Your task to perform on an android device: allow cookies in the chrome app Image 0: 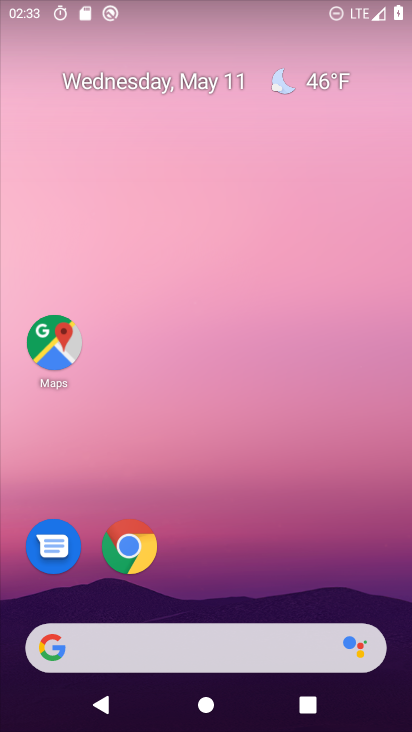
Step 0: drag from (249, 663) to (288, 153)
Your task to perform on an android device: allow cookies in the chrome app Image 1: 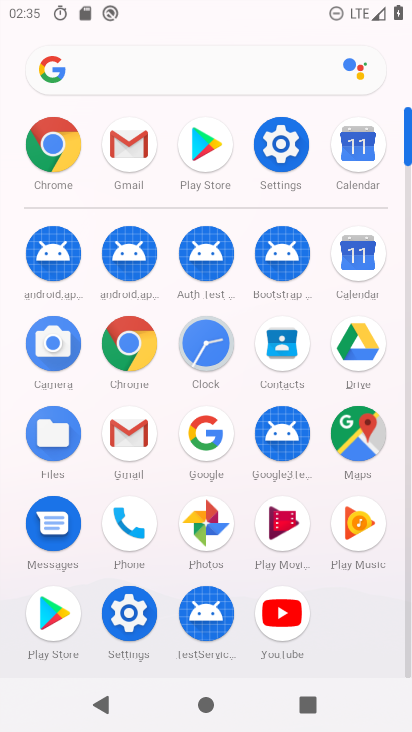
Step 1: click (120, 340)
Your task to perform on an android device: allow cookies in the chrome app Image 2: 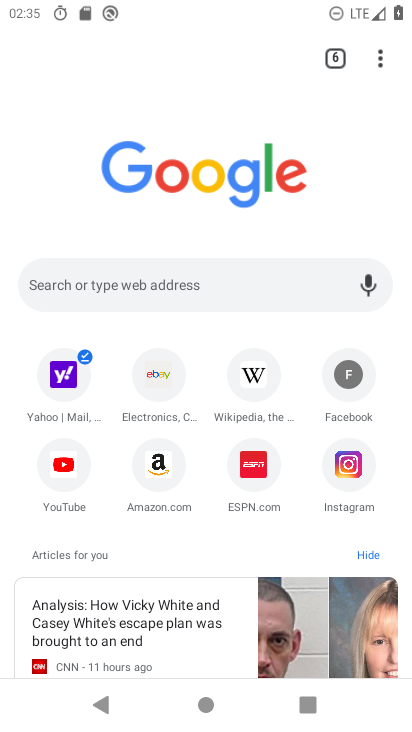
Step 2: click (378, 60)
Your task to perform on an android device: allow cookies in the chrome app Image 3: 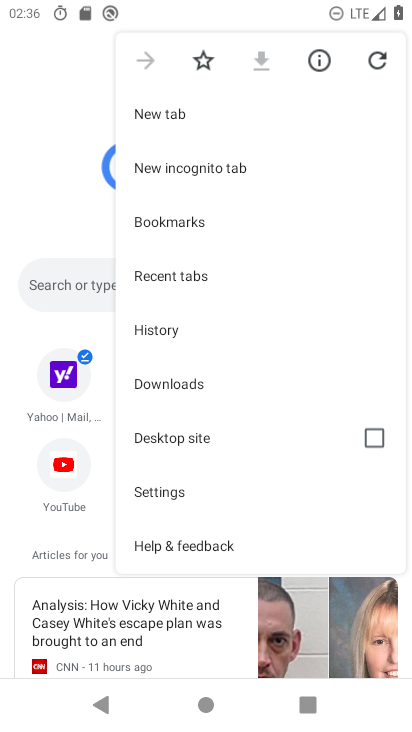
Step 3: click (174, 487)
Your task to perform on an android device: allow cookies in the chrome app Image 4: 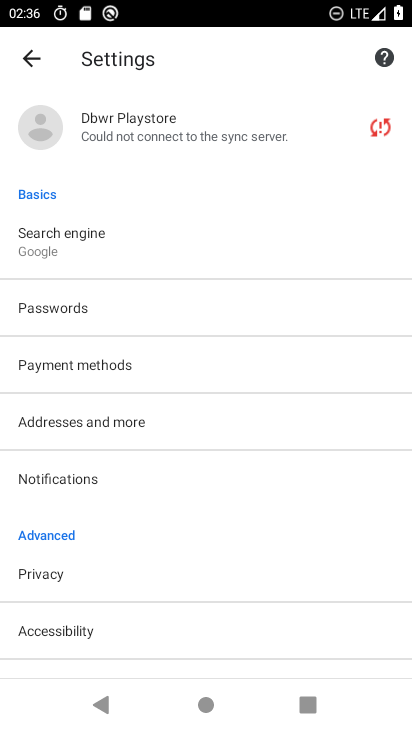
Step 4: drag from (178, 565) to (166, 388)
Your task to perform on an android device: allow cookies in the chrome app Image 5: 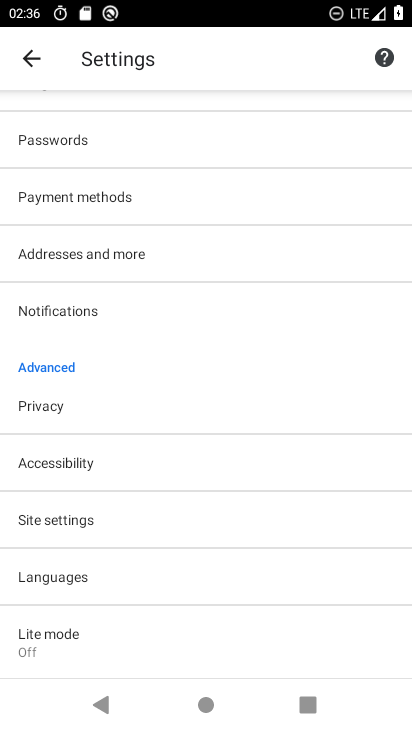
Step 5: click (115, 515)
Your task to perform on an android device: allow cookies in the chrome app Image 6: 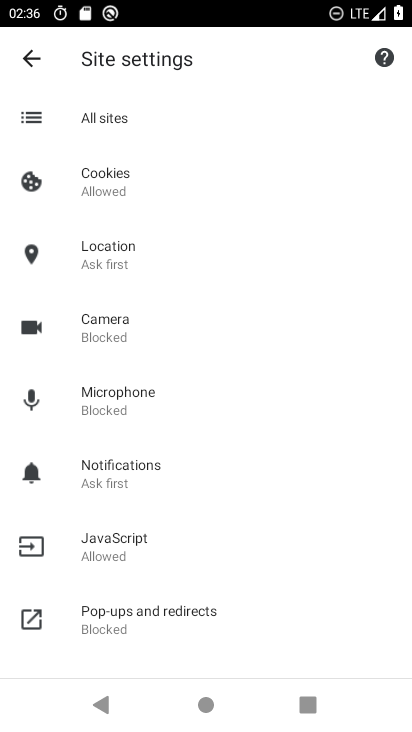
Step 6: click (145, 185)
Your task to perform on an android device: allow cookies in the chrome app Image 7: 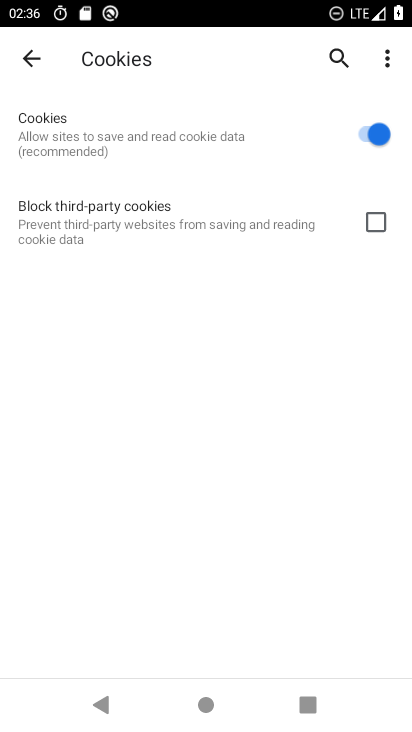
Step 7: click (159, 130)
Your task to perform on an android device: allow cookies in the chrome app Image 8: 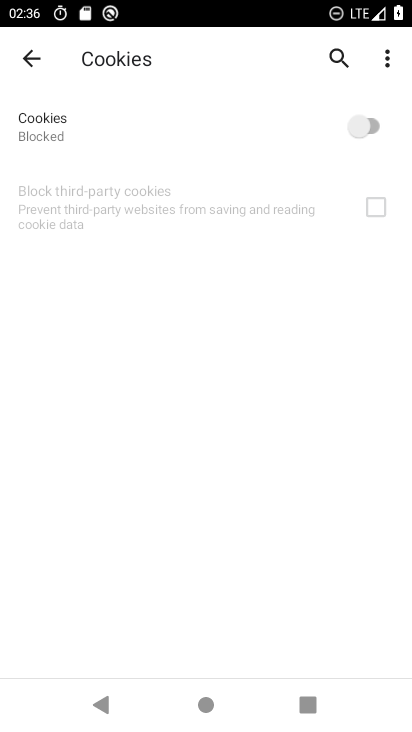
Step 8: click (159, 130)
Your task to perform on an android device: allow cookies in the chrome app Image 9: 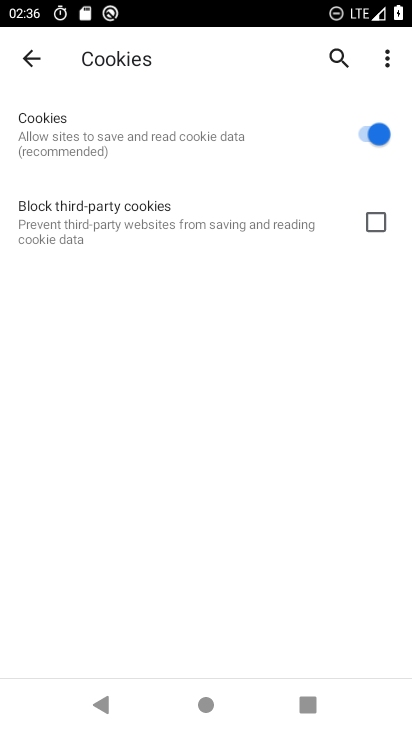
Step 9: task complete